Your task to perform on an android device: Go to privacy settings Image 0: 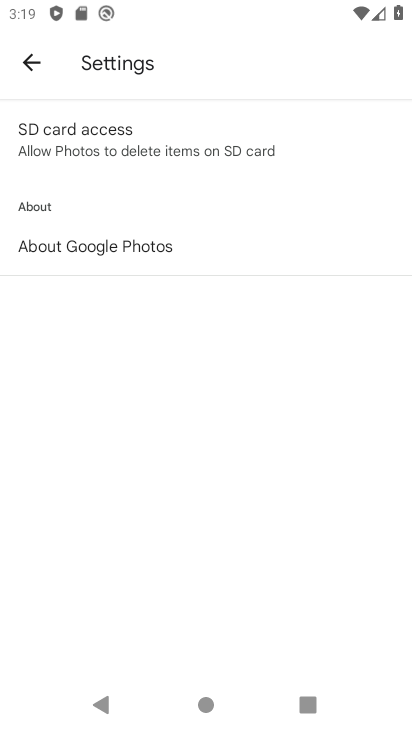
Step 0: press home button
Your task to perform on an android device: Go to privacy settings Image 1: 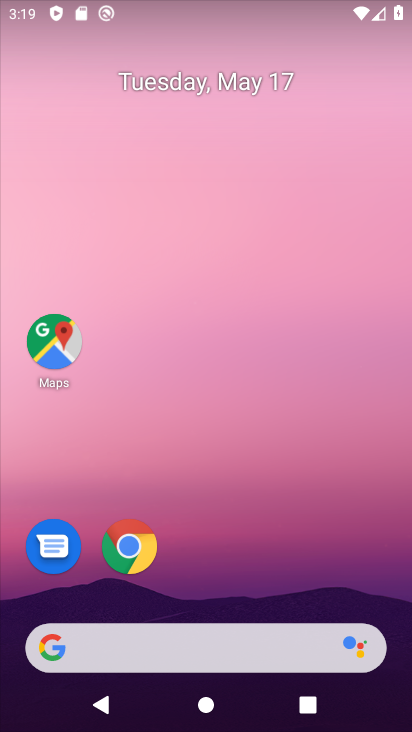
Step 1: drag from (170, 586) to (211, 181)
Your task to perform on an android device: Go to privacy settings Image 2: 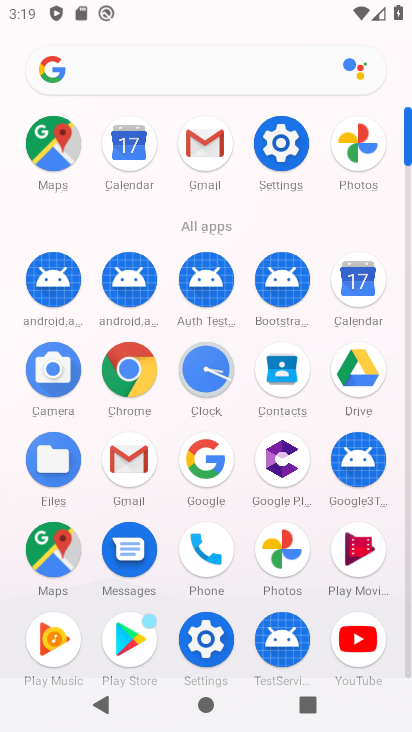
Step 2: click (276, 135)
Your task to perform on an android device: Go to privacy settings Image 3: 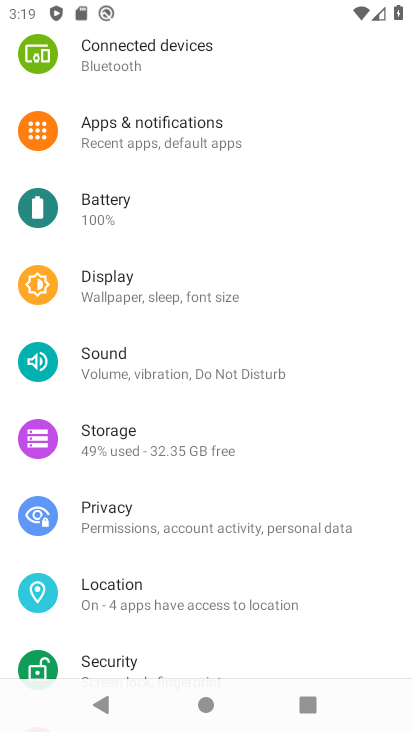
Step 3: click (153, 530)
Your task to perform on an android device: Go to privacy settings Image 4: 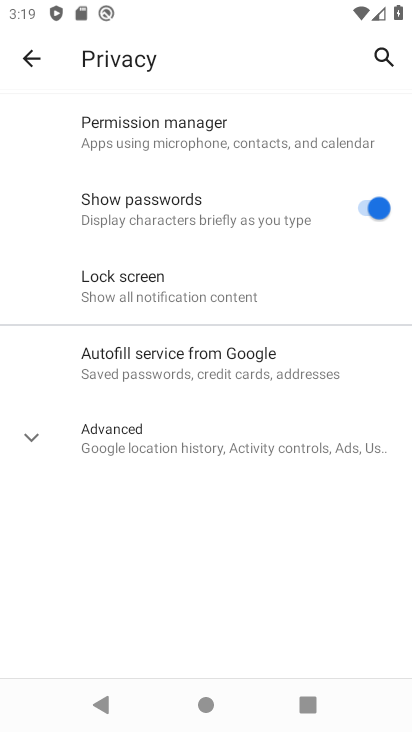
Step 4: task complete